Your task to perform on an android device: toggle show notifications on the lock screen Image 0: 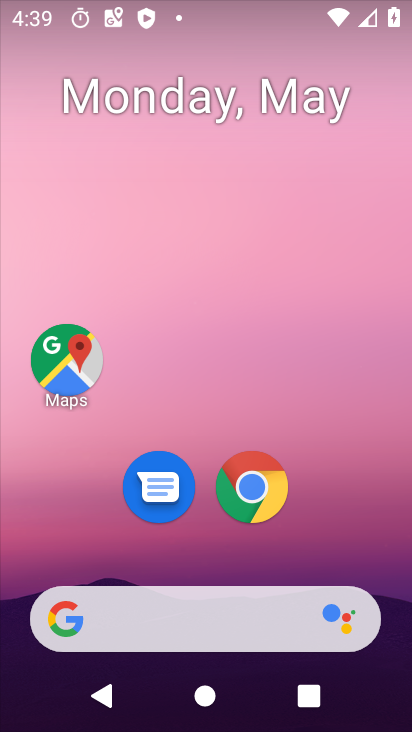
Step 0: drag from (210, 584) to (211, 278)
Your task to perform on an android device: toggle show notifications on the lock screen Image 1: 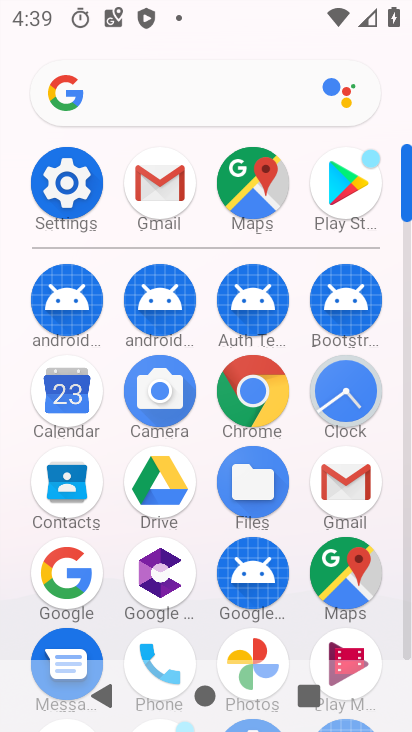
Step 1: click (67, 184)
Your task to perform on an android device: toggle show notifications on the lock screen Image 2: 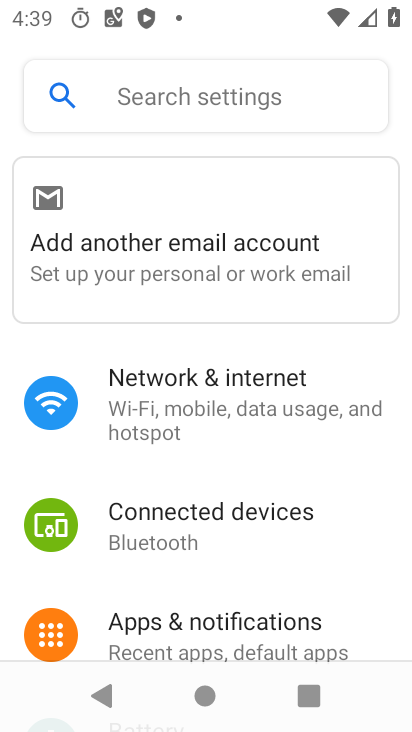
Step 2: drag from (238, 628) to (231, 300)
Your task to perform on an android device: toggle show notifications on the lock screen Image 3: 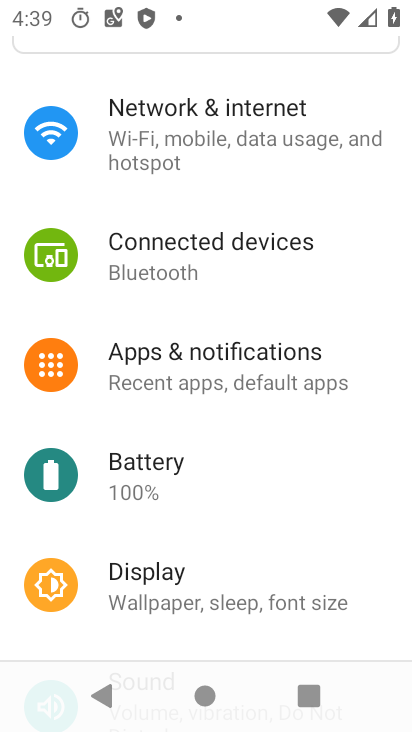
Step 3: drag from (213, 602) to (184, 353)
Your task to perform on an android device: toggle show notifications on the lock screen Image 4: 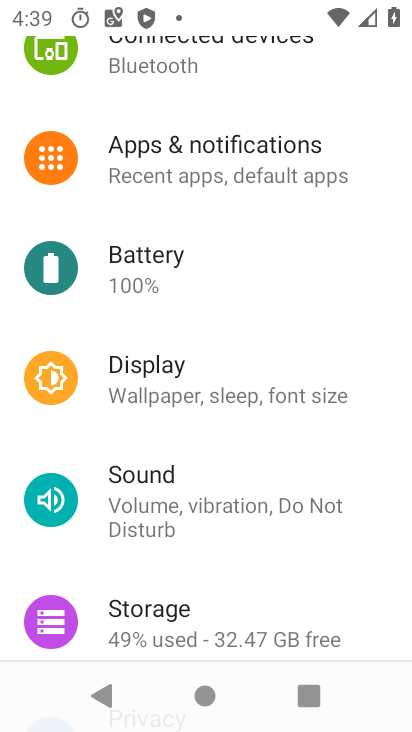
Step 4: drag from (152, 640) to (147, 329)
Your task to perform on an android device: toggle show notifications on the lock screen Image 5: 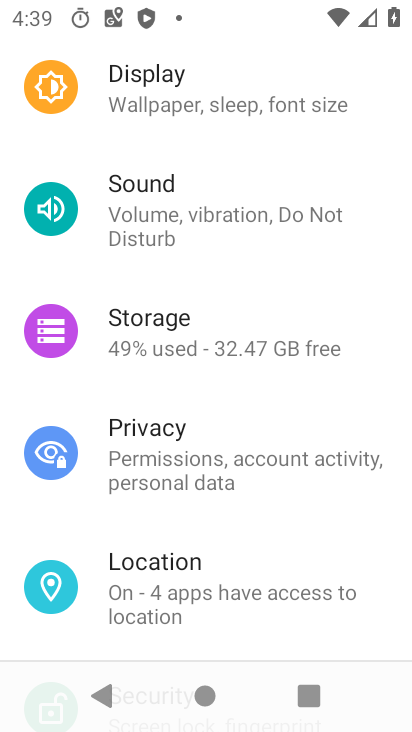
Step 5: click (197, 449)
Your task to perform on an android device: toggle show notifications on the lock screen Image 6: 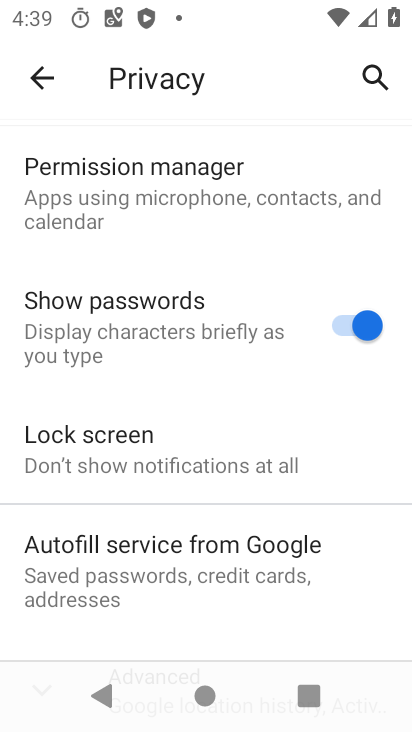
Step 6: click (169, 278)
Your task to perform on an android device: toggle show notifications on the lock screen Image 7: 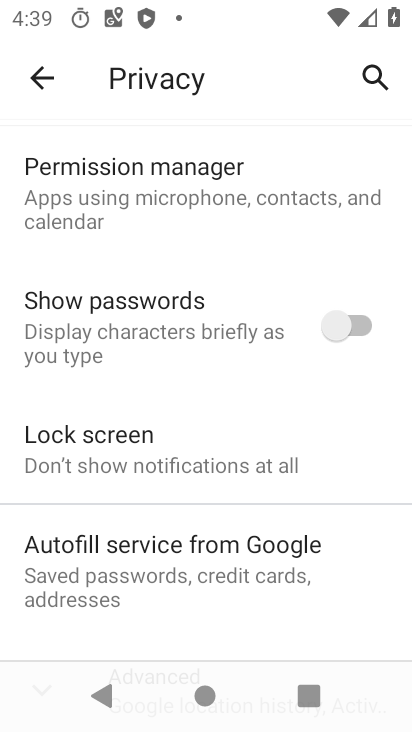
Step 7: click (116, 453)
Your task to perform on an android device: toggle show notifications on the lock screen Image 8: 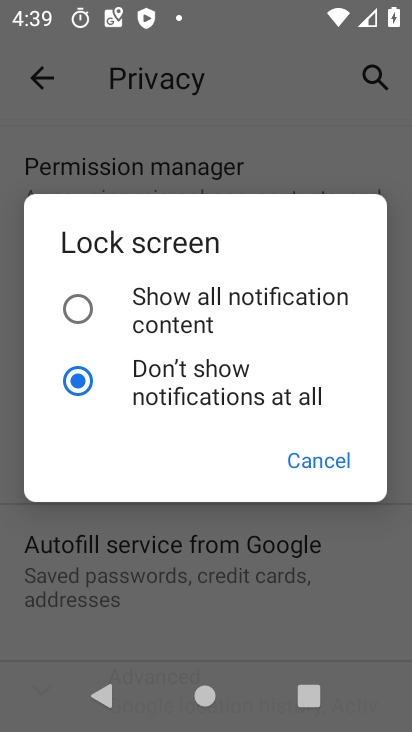
Step 8: click (139, 300)
Your task to perform on an android device: toggle show notifications on the lock screen Image 9: 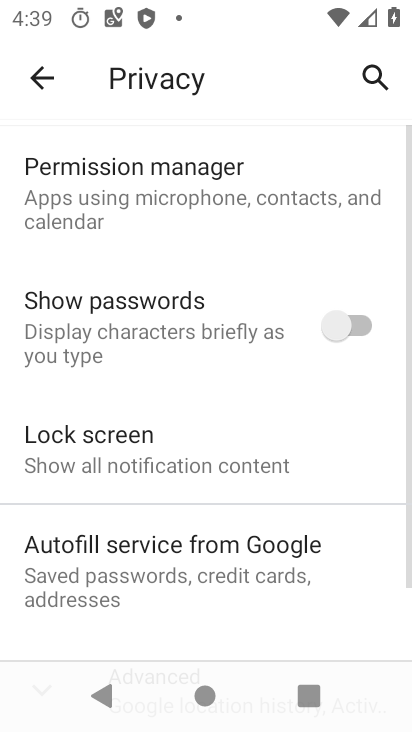
Step 9: task complete